Your task to perform on an android device: Go to Wikipedia Image 0: 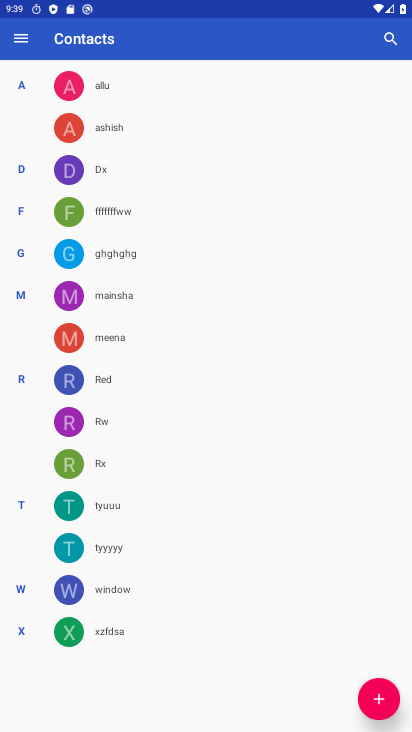
Step 0: press home button
Your task to perform on an android device: Go to Wikipedia Image 1: 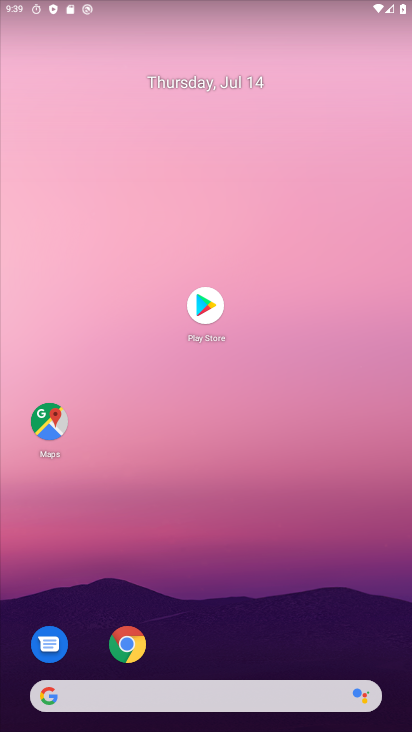
Step 1: drag from (186, 664) to (238, 19)
Your task to perform on an android device: Go to Wikipedia Image 2: 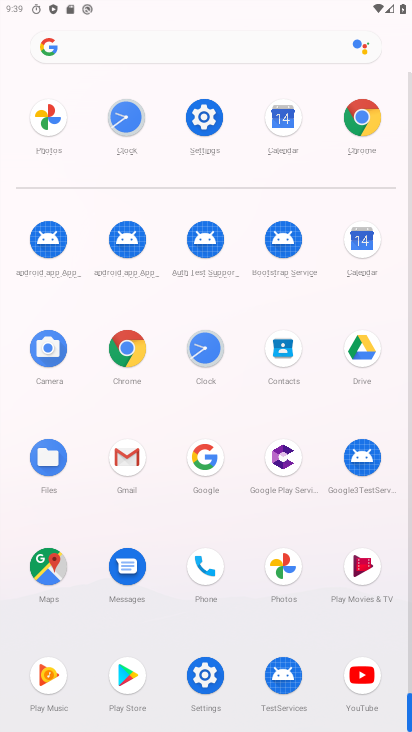
Step 2: click (193, 45)
Your task to perform on an android device: Go to Wikipedia Image 3: 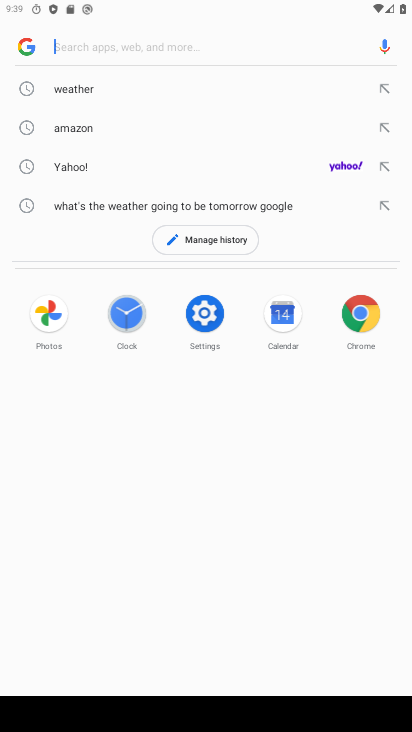
Step 3: click (139, 35)
Your task to perform on an android device: Go to Wikipedia Image 4: 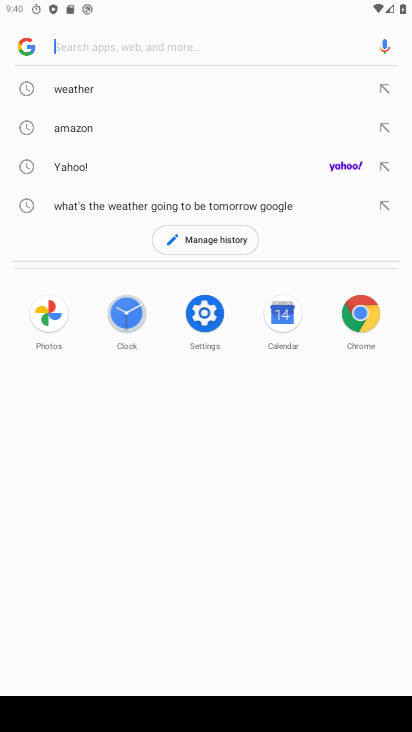
Step 4: type "Wikipedia"
Your task to perform on an android device: Go to Wikipedia Image 5: 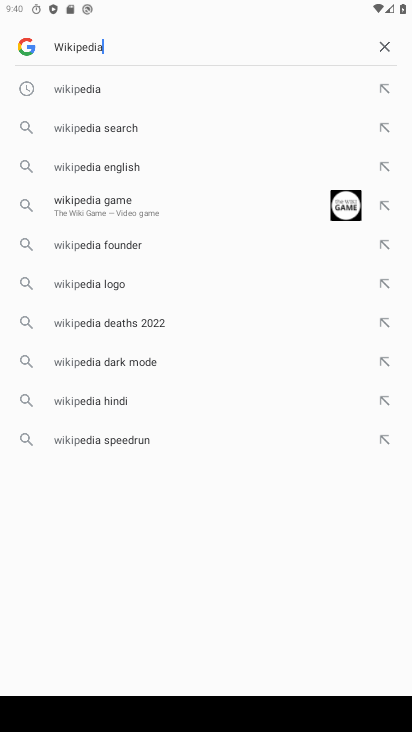
Step 5: type ""
Your task to perform on an android device: Go to Wikipedia Image 6: 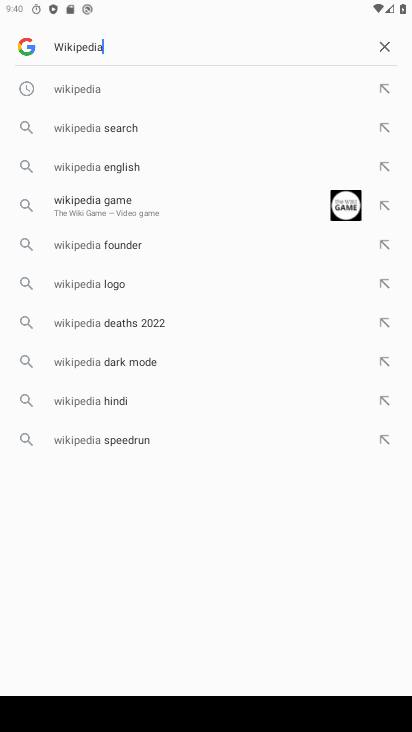
Step 6: click (107, 84)
Your task to perform on an android device: Go to Wikipedia Image 7: 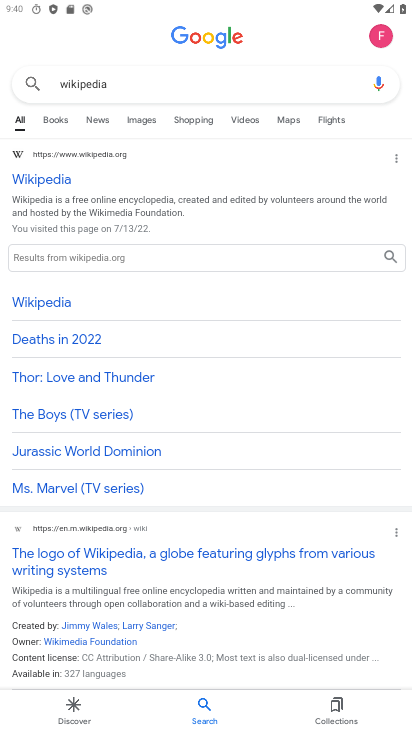
Step 7: click (34, 173)
Your task to perform on an android device: Go to Wikipedia Image 8: 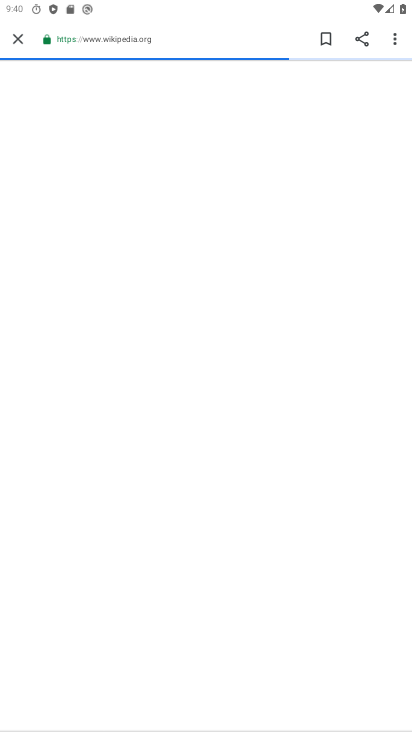
Step 8: task complete